Your task to perform on an android device: check android version Image 0: 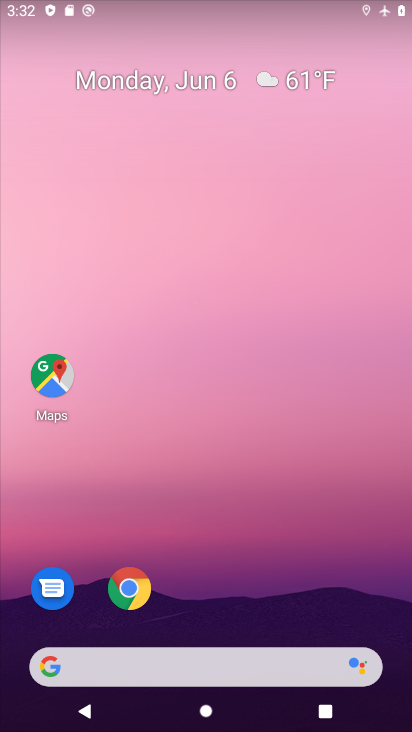
Step 0: drag from (216, 546) to (188, 261)
Your task to perform on an android device: check android version Image 1: 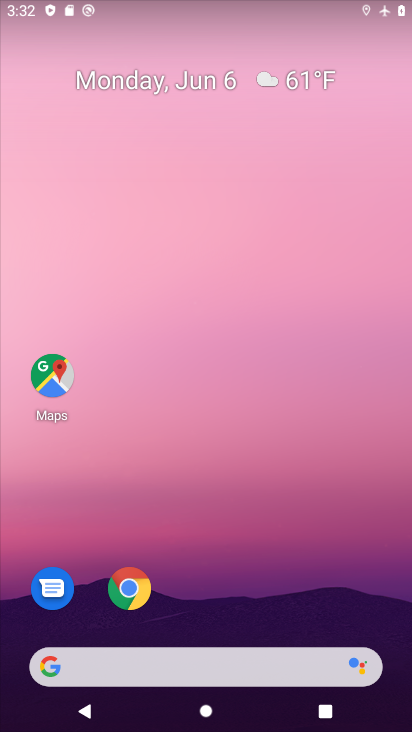
Step 1: drag from (238, 393) to (210, 250)
Your task to perform on an android device: check android version Image 2: 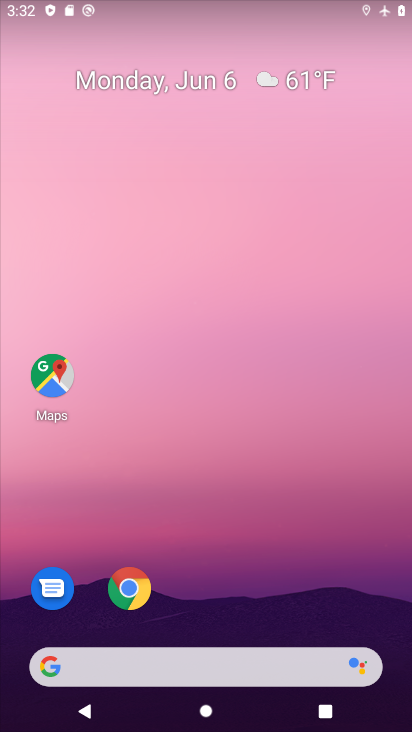
Step 2: drag from (236, 538) to (205, 333)
Your task to perform on an android device: check android version Image 3: 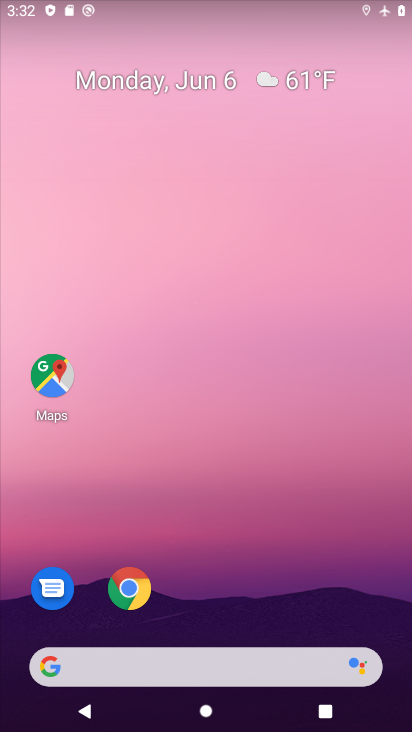
Step 3: drag from (253, 611) to (304, 1)
Your task to perform on an android device: check android version Image 4: 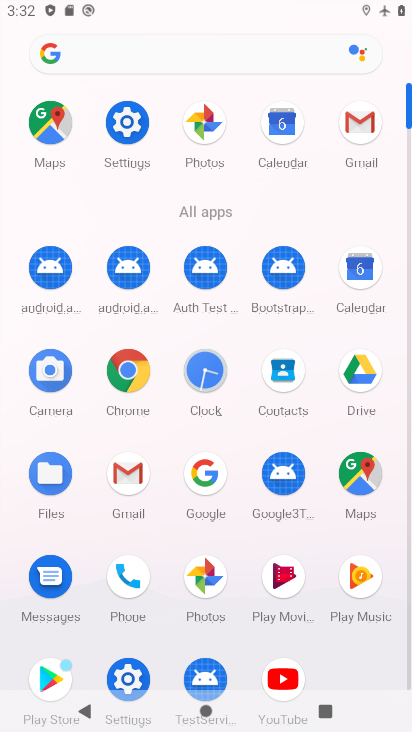
Step 4: click (131, 145)
Your task to perform on an android device: check android version Image 5: 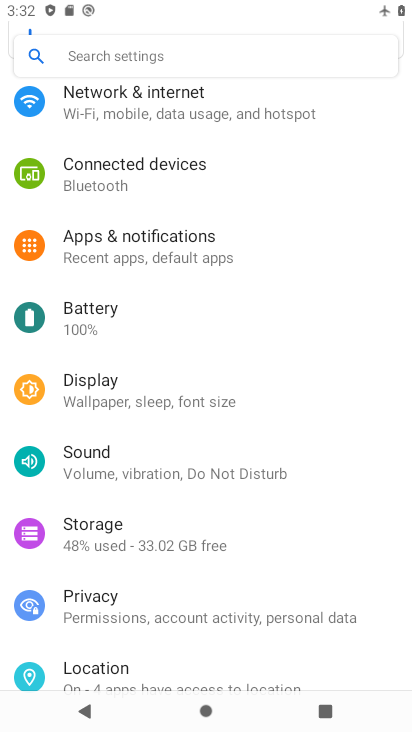
Step 5: drag from (215, 588) to (187, 75)
Your task to perform on an android device: check android version Image 6: 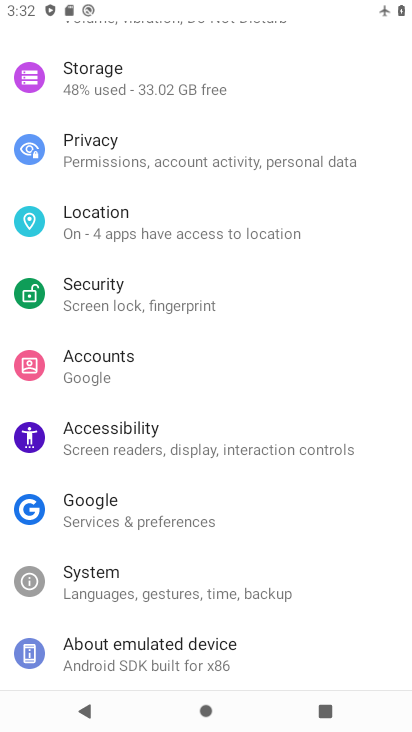
Step 6: click (202, 660)
Your task to perform on an android device: check android version Image 7: 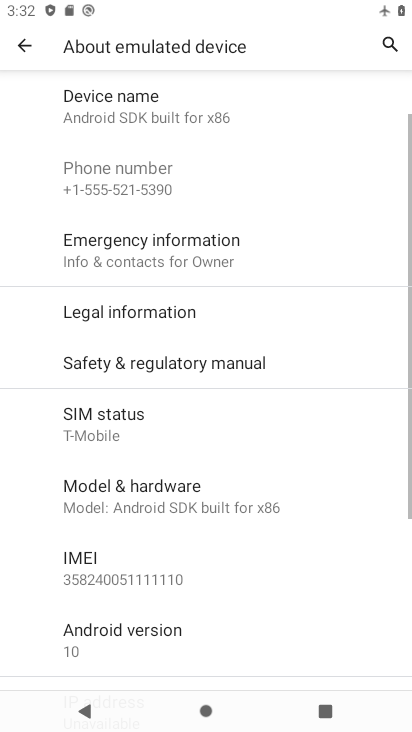
Step 7: click (186, 642)
Your task to perform on an android device: check android version Image 8: 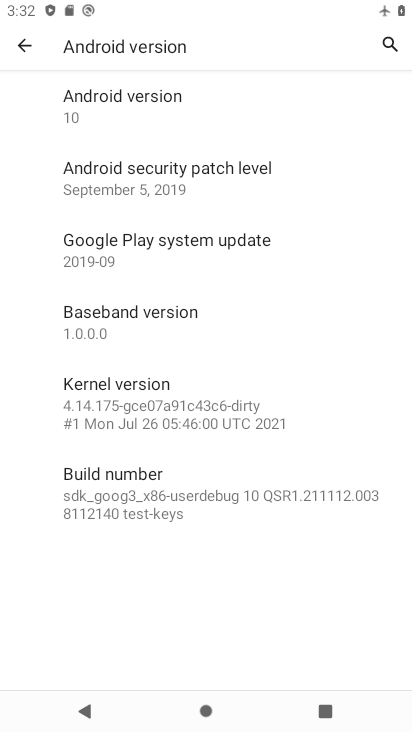
Step 8: task complete